Your task to perform on an android device: See recent photos Image 0: 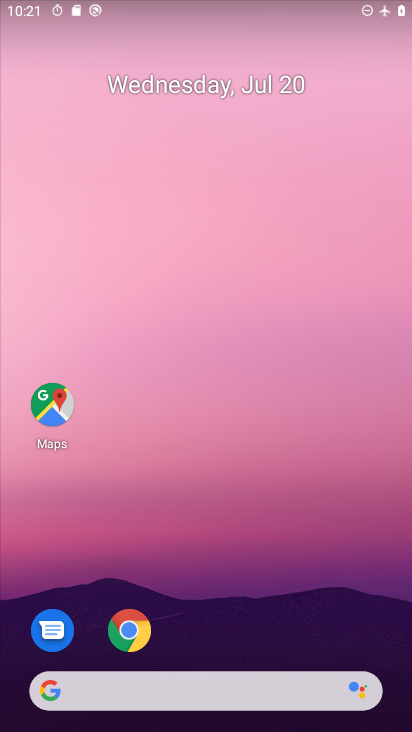
Step 0: drag from (224, 660) to (226, 255)
Your task to perform on an android device: See recent photos Image 1: 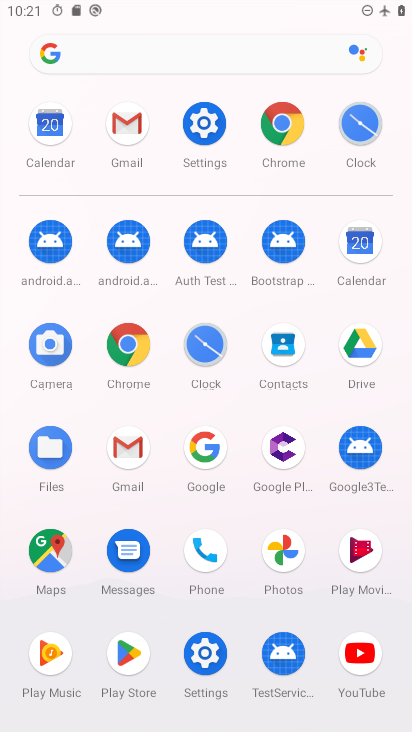
Step 1: click (292, 567)
Your task to perform on an android device: See recent photos Image 2: 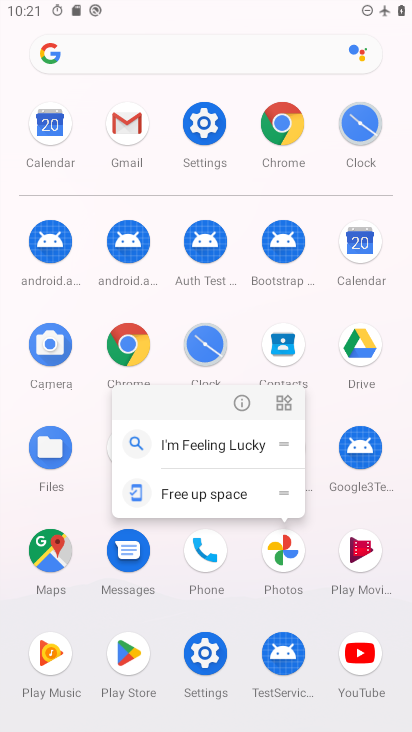
Step 2: click (291, 566)
Your task to perform on an android device: See recent photos Image 3: 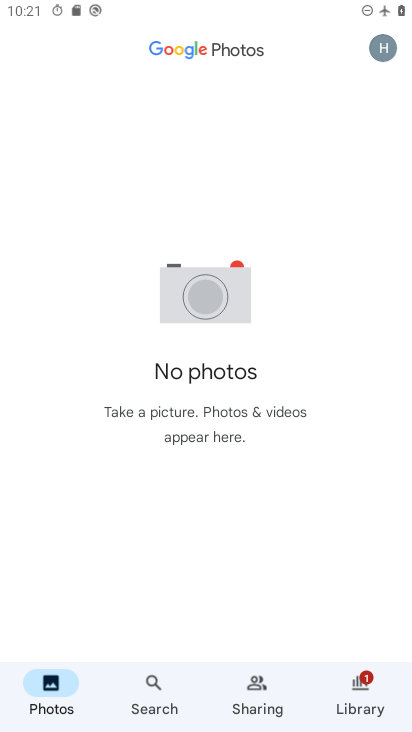
Step 3: task complete